Your task to perform on an android device: star an email in the gmail app Image 0: 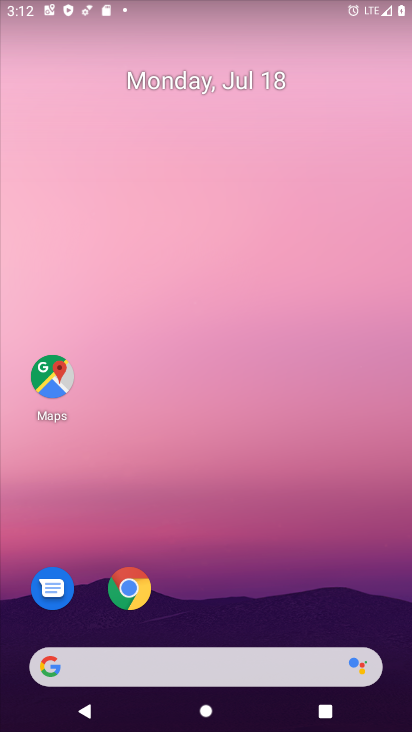
Step 0: drag from (203, 593) to (226, 9)
Your task to perform on an android device: star an email in the gmail app Image 1: 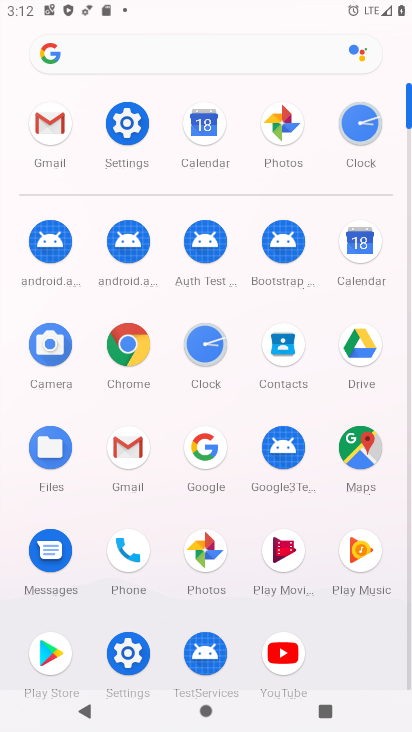
Step 1: click (40, 112)
Your task to perform on an android device: star an email in the gmail app Image 2: 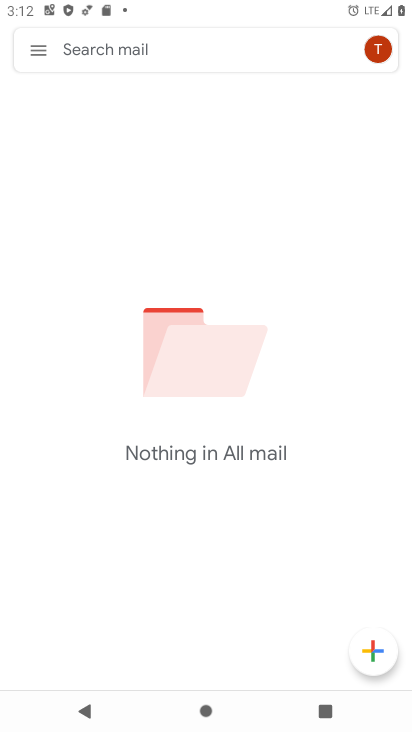
Step 2: task complete